Your task to perform on an android device: Go to privacy settings Image 0: 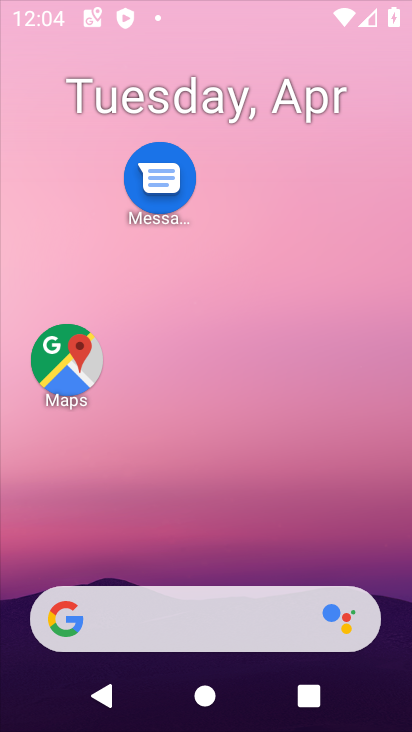
Step 0: click (210, 27)
Your task to perform on an android device: Go to privacy settings Image 1: 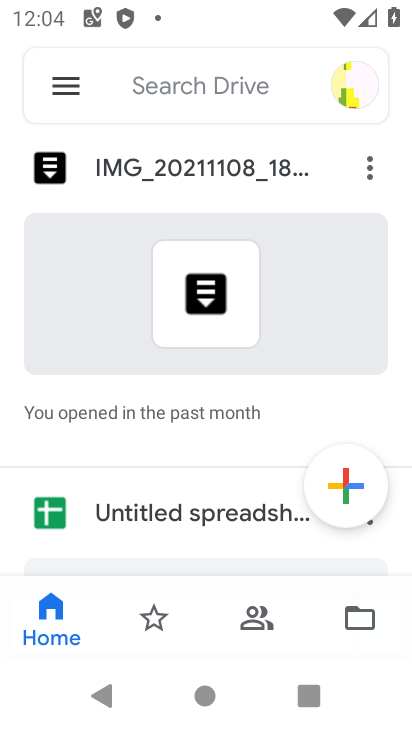
Step 1: press back button
Your task to perform on an android device: Go to privacy settings Image 2: 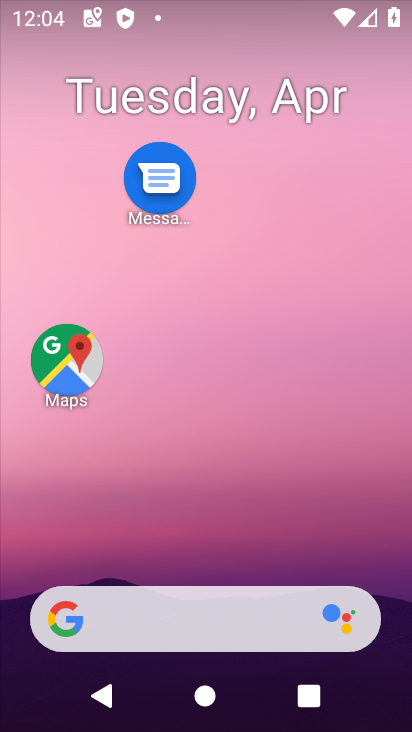
Step 2: drag from (206, 724) to (206, 69)
Your task to perform on an android device: Go to privacy settings Image 3: 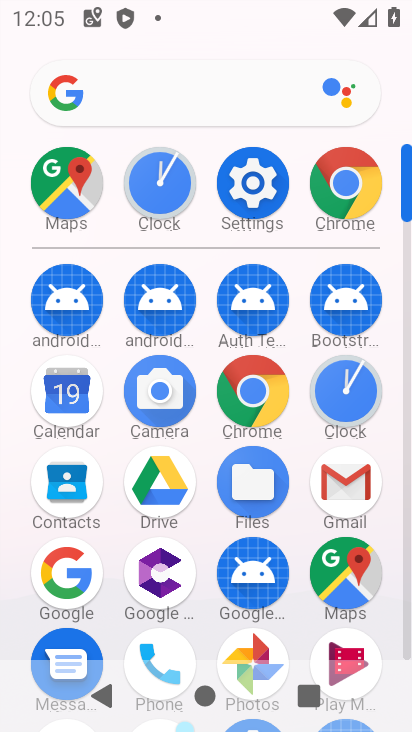
Step 3: click (243, 183)
Your task to perform on an android device: Go to privacy settings Image 4: 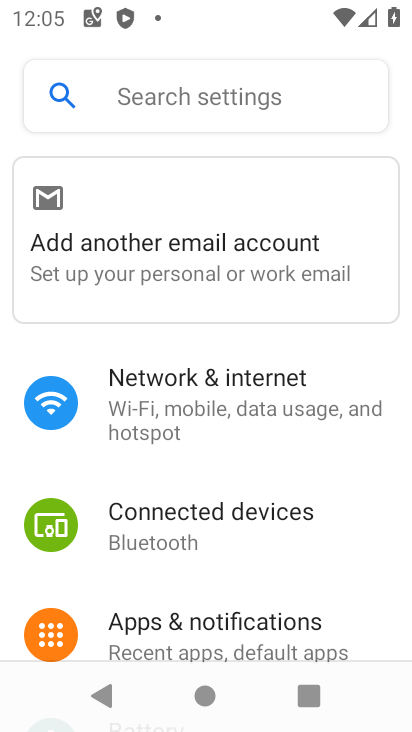
Step 4: drag from (225, 616) to (187, 109)
Your task to perform on an android device: Go to privacy settings Image 5: 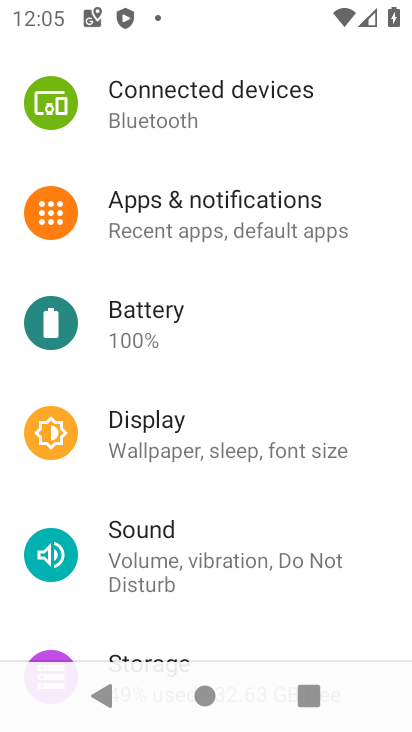
Step 5: drag from (196, 590) to (175, 167)
Your task to perform on an android device: Go to privacy settings Image 6: 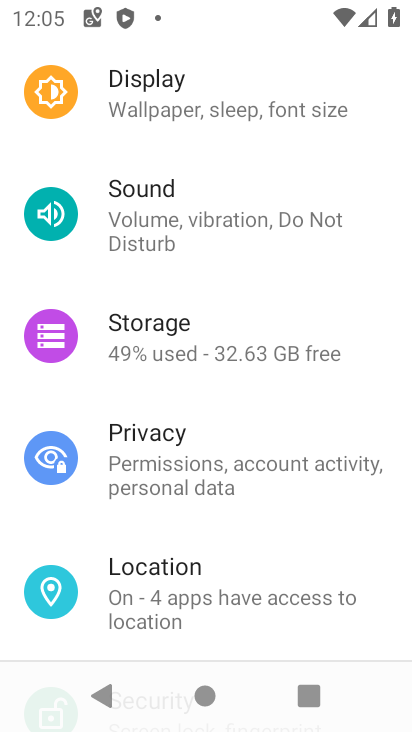
Step 6: click (171, 476)
Your task to perform on an android device: Go to privacy settings Image 7: 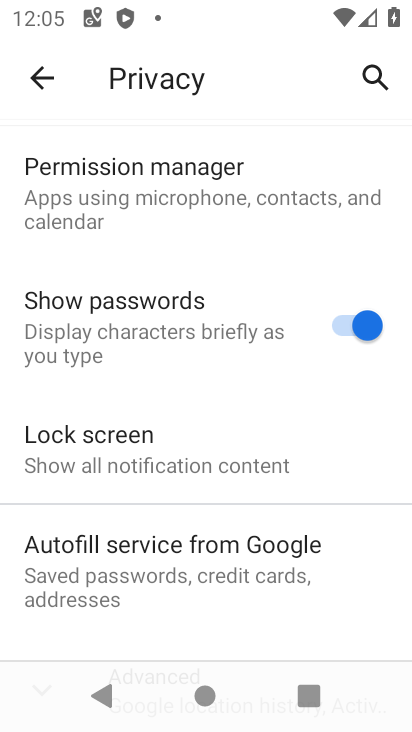
Step 7: task complete